Your task to perform on an android device: Open CNN.com Image 0: 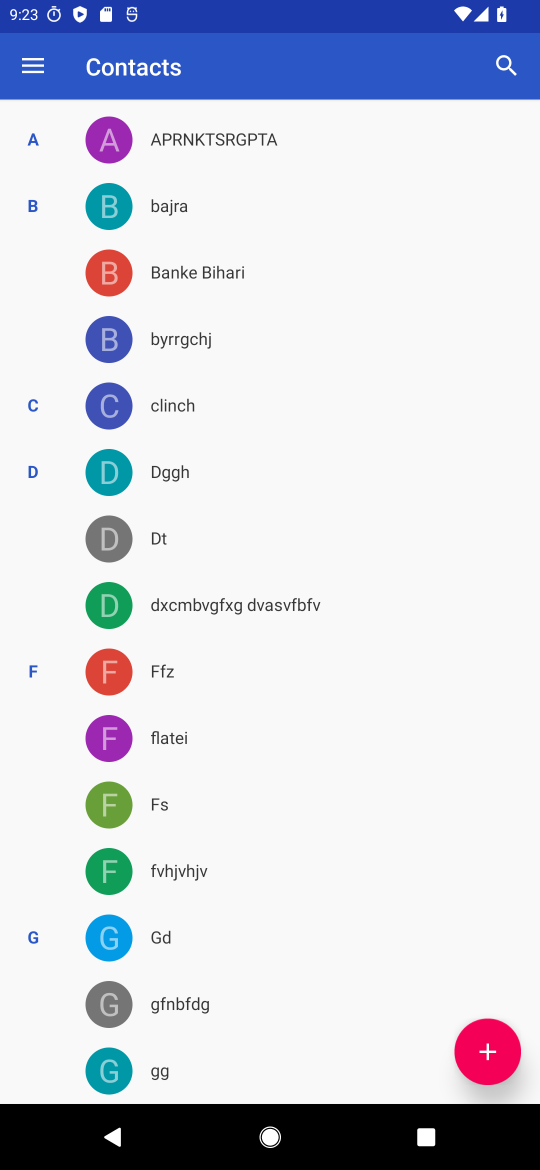
Step 0: press home button
Your task to perform on an android device: Open CNN.com Image 1: 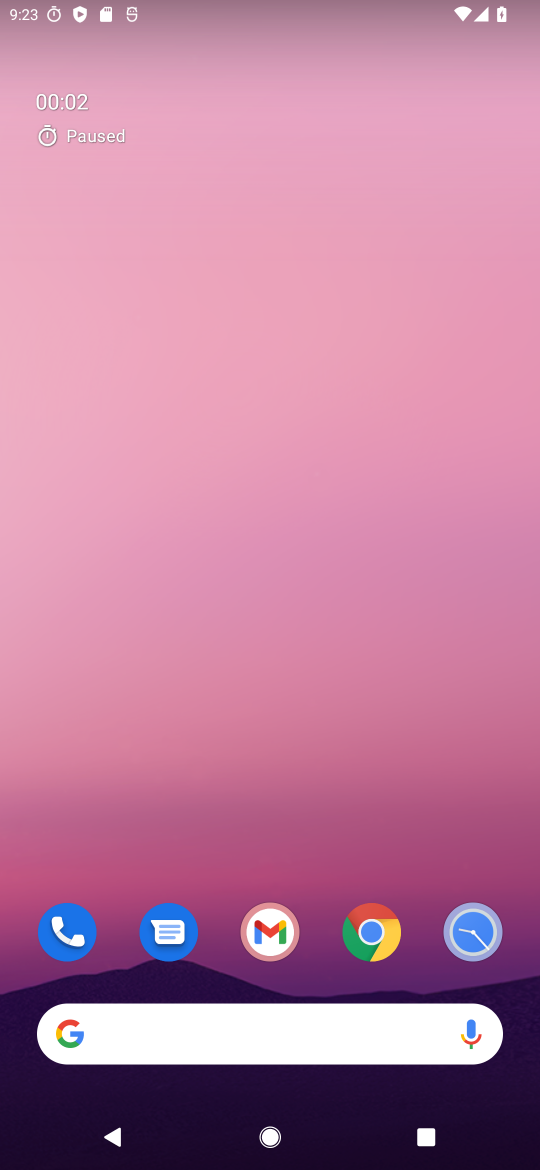
Step 1: click (375, 926)
Your task to perform on an android device: Open CNN.com Image 2: 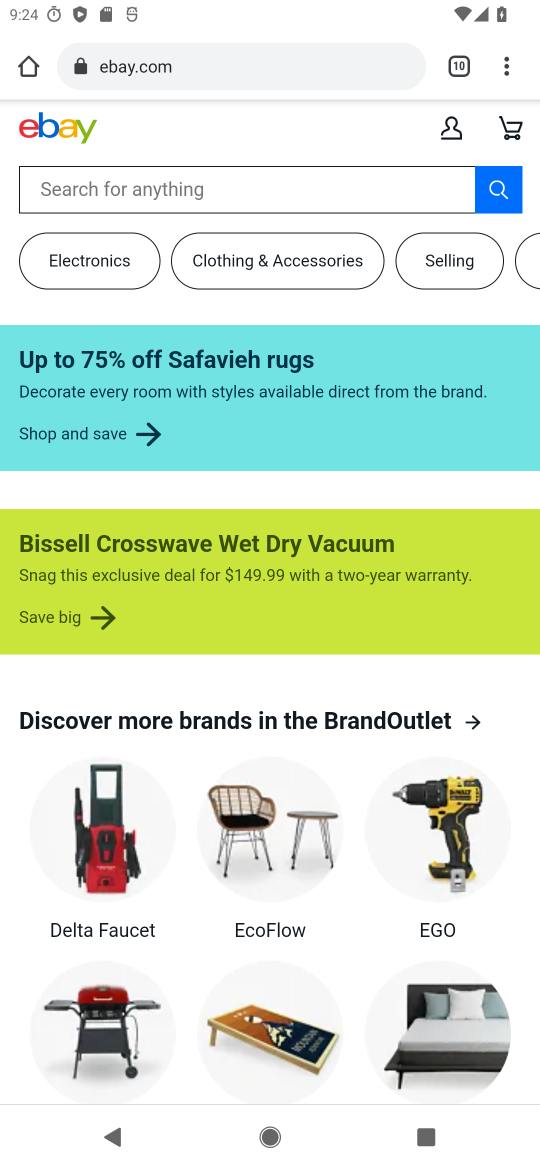
Step 2: drag from (501, 68) to (345, 206)
Your task to perform on an android device: Open CNN.com Image 3: 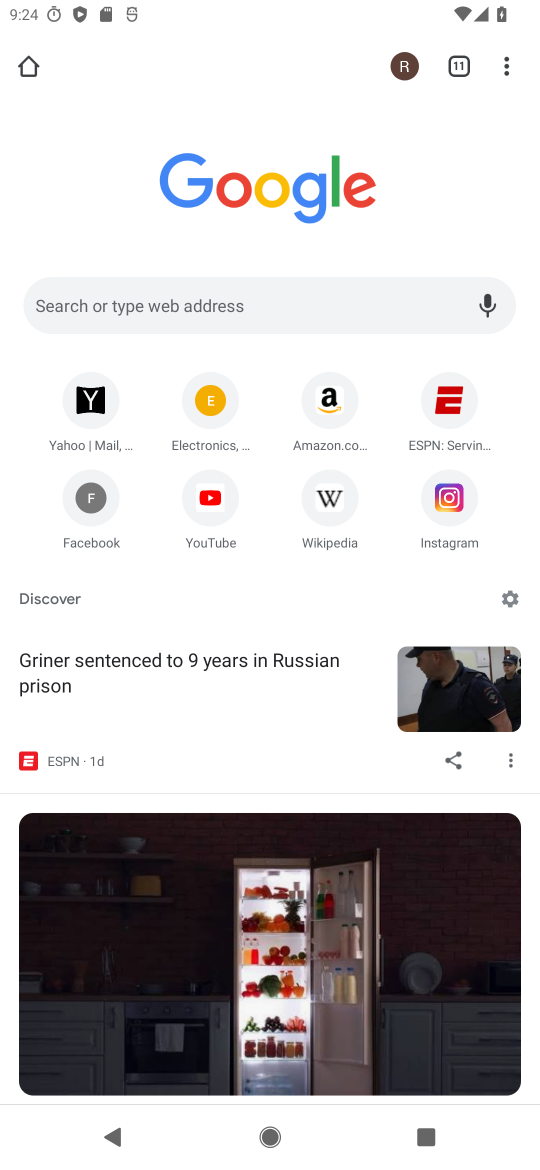
Step 3: click (163, 307)
Your task to perform on an android device: Open CNN.com Image 4: 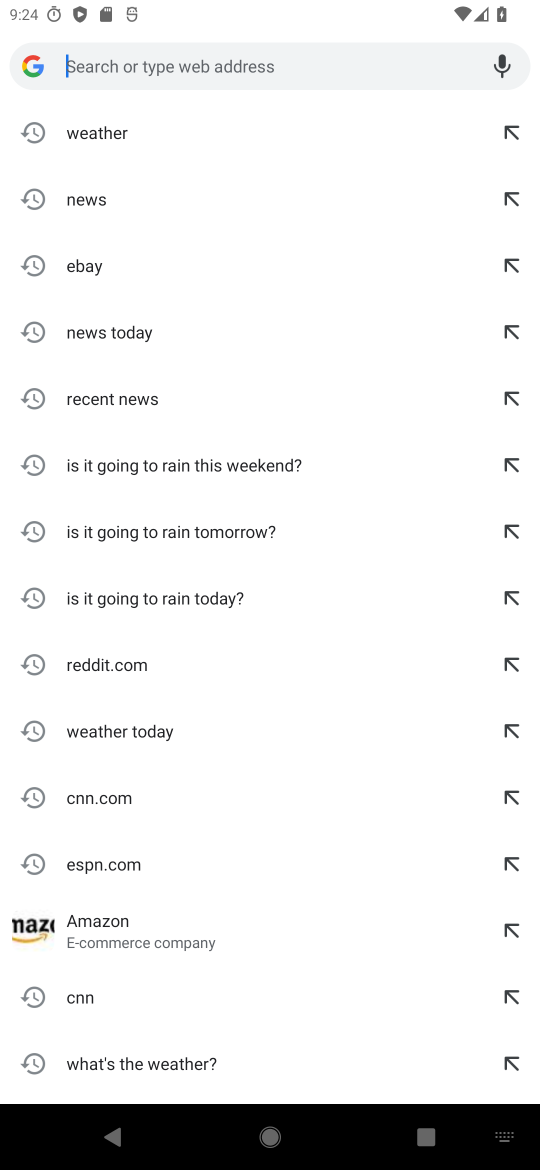
Step 4: type "CNN.com"
Your task to perform on an android device: Open CNN.com Image 5: 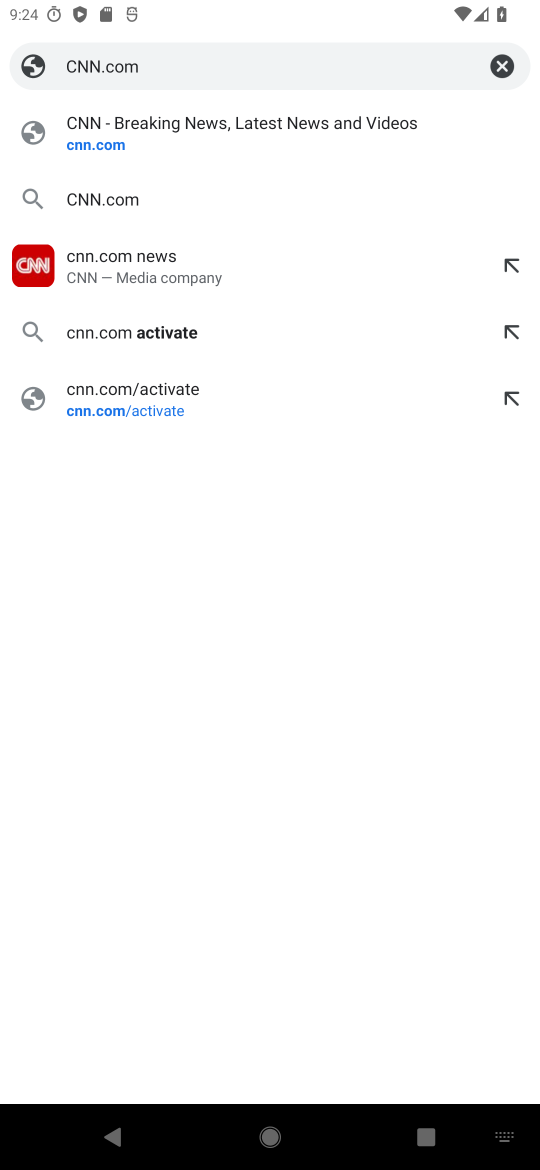
Step 5: click (145, 122)
Your task to perform on an android device: Open CNN.com Image 6: 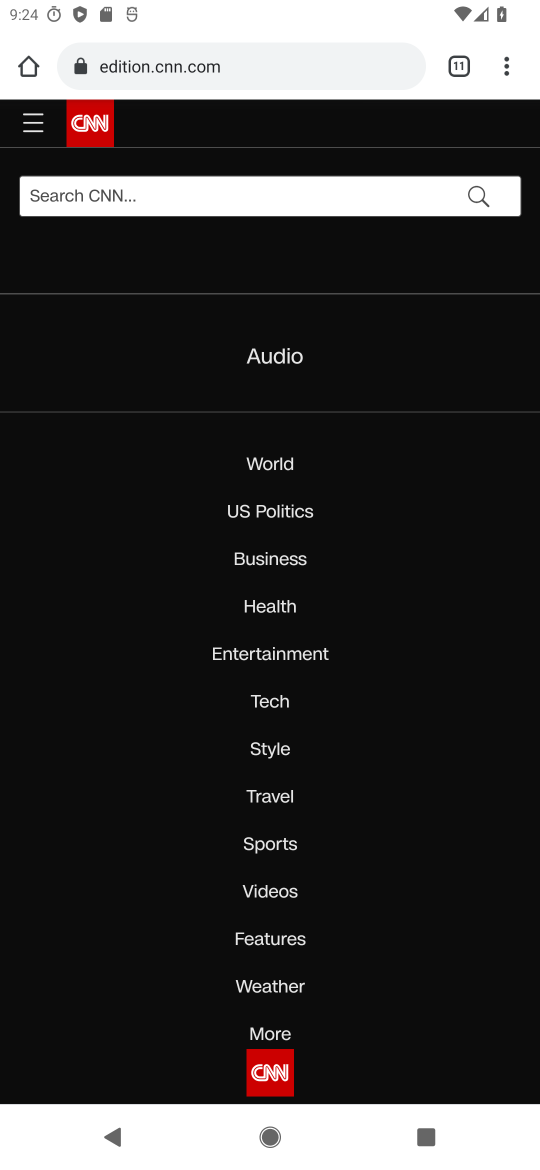
Step 6: task complete